Your task to perform on an android device: Open maps Image 0: 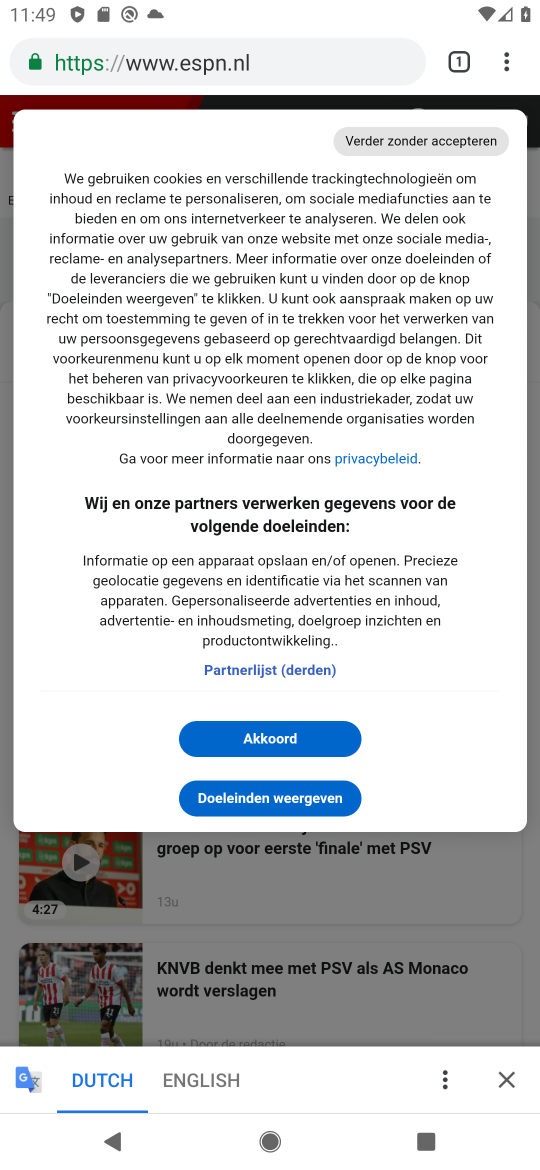
Step 0: press home button
Your task to perform on an android device: Open maps Image 1: 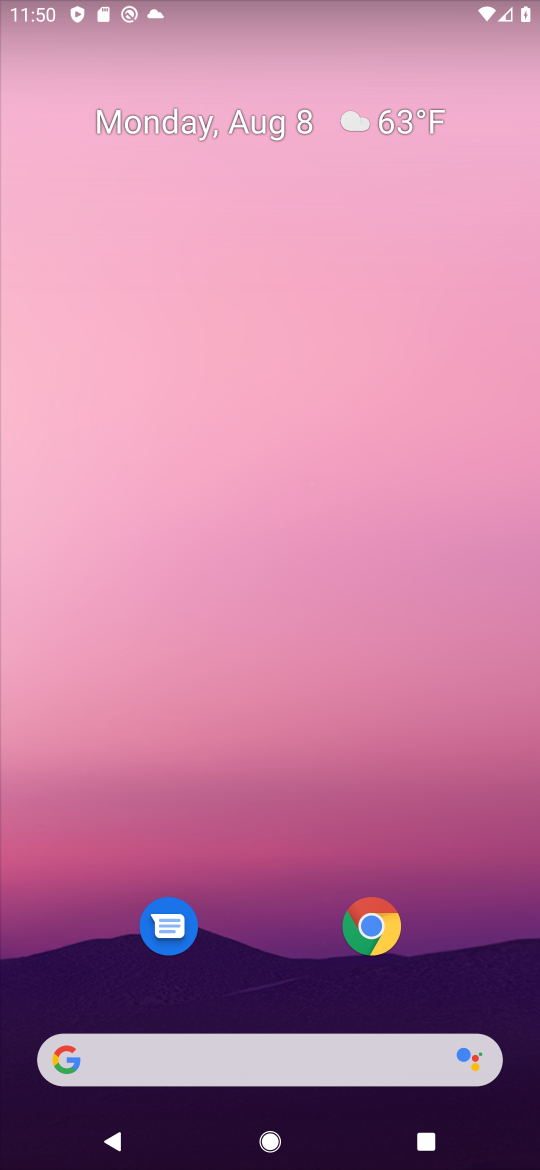
Step 1: drag from (51, 834) to (354, 170)
Your task to perform on an android device: Open maps Image 2: 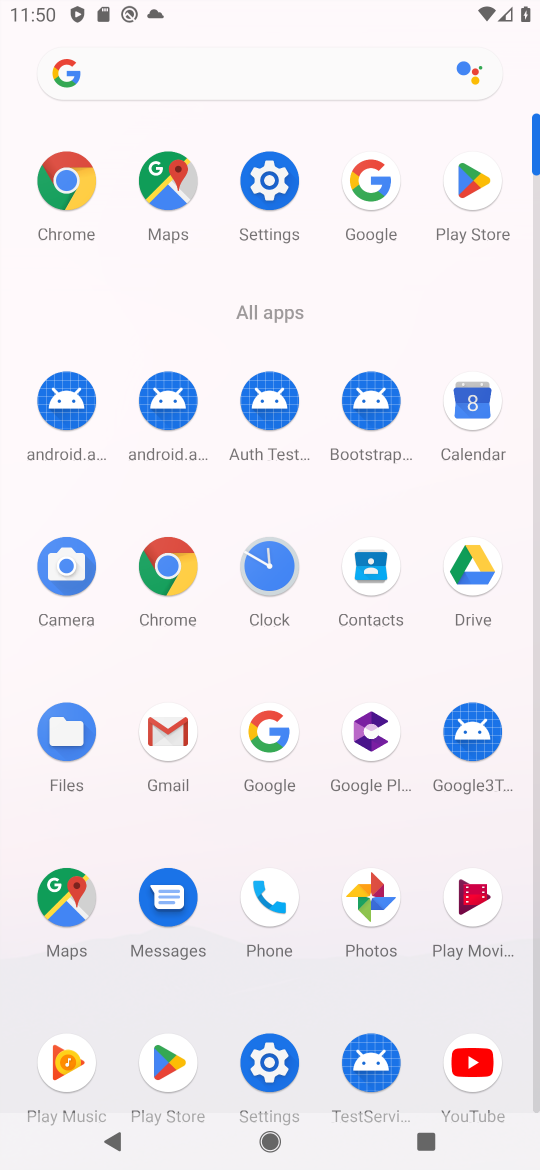
Step 2: click (72, 895)
Your task to perform on an android device: Open maps Image 3: 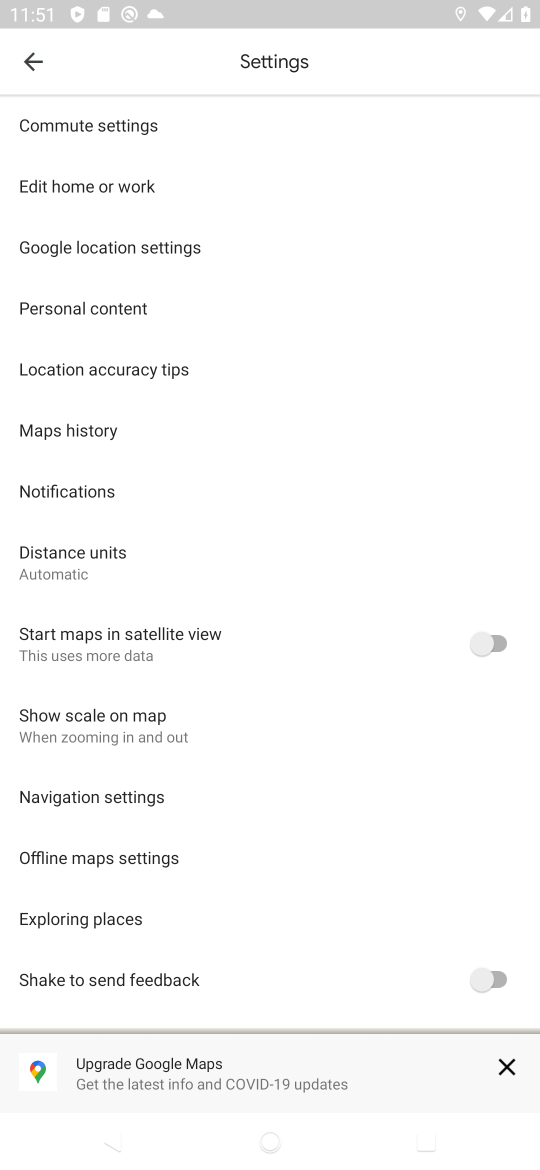
Step 3: click (26, 67)
Your task to perform on an android device: Open maps Image 4: 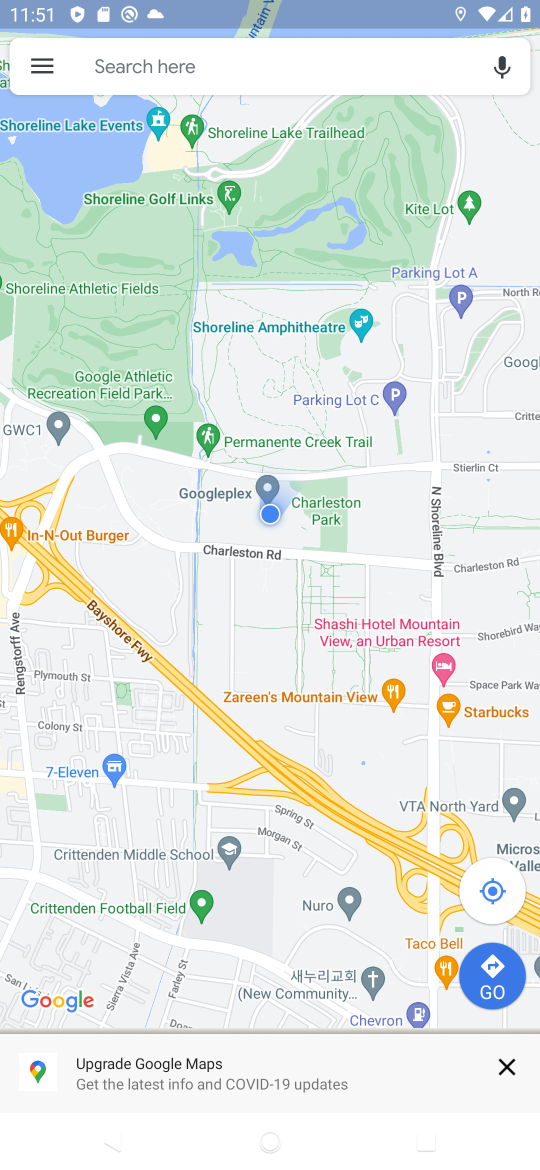
Step 4: task complete